Your task to perform on an android device: turn on javascript in the chrome app Image 0: 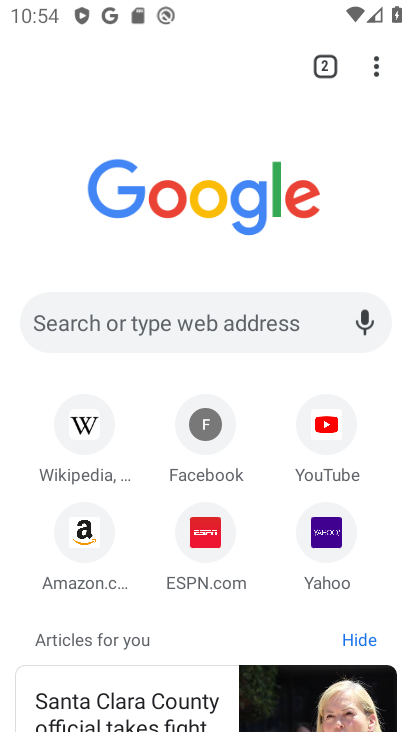
Step 0: click (326, 588)
Your task to perform on an android device: turn on javascript in the chrome app Image 1: 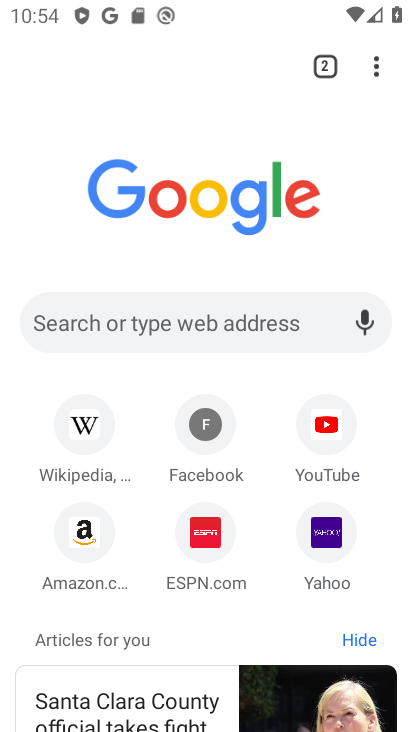
Step 1: click (374, 70)
Your task to perform on an android device: turn on javascript in the chrome app Image 2: 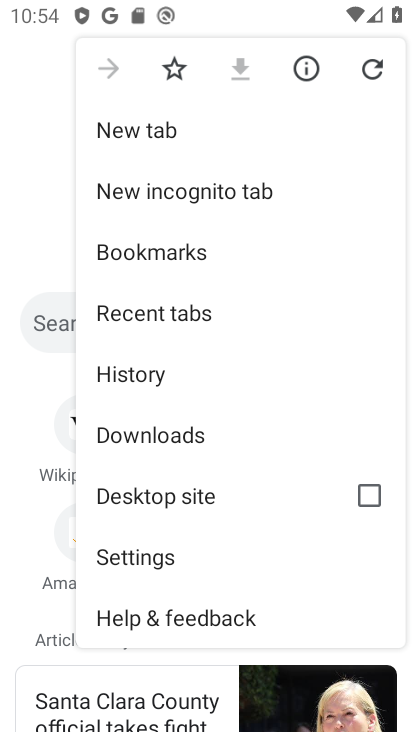
Step 2: click (161, 555)
Your task to perform on an android device: turn on javascript in the chrome app Image 3: 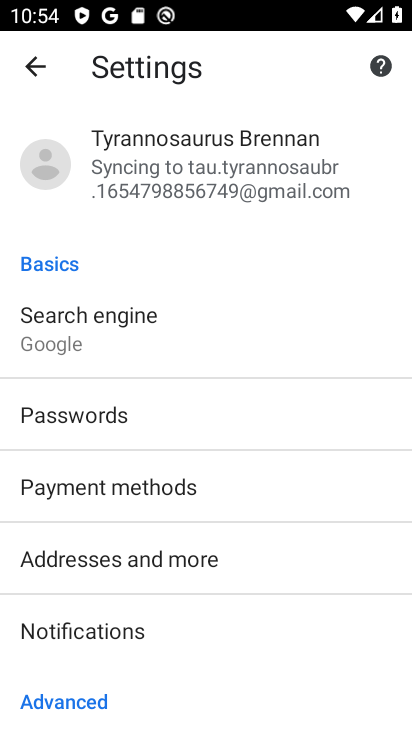
Step 3: drag from (191, 604) to (233, 265)
Your task to perform on an android device: turn on javascript in the chrome app Image 4: 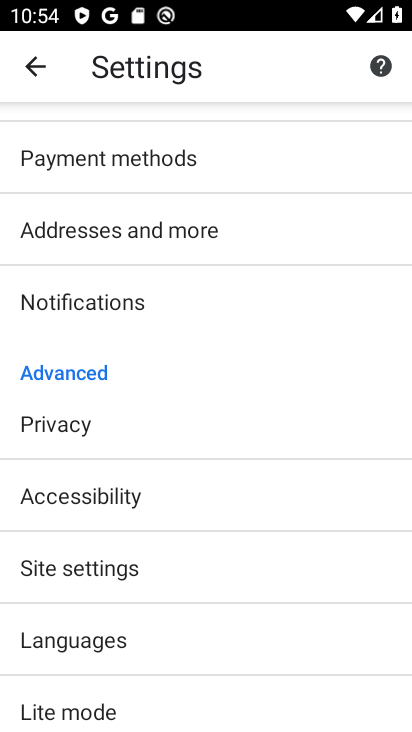
Step 4: click (125, 556)
Your task to perform on an android device: turn on javascript in the chrome app Image 5: 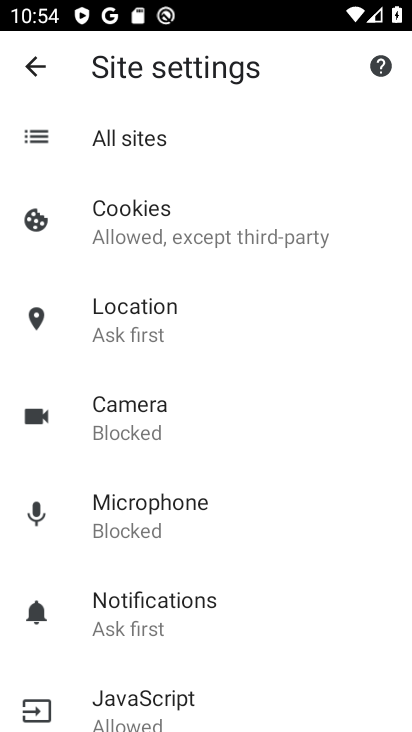
Step 5: drag from (232, 538) to (243, 280)
Your task to perform on an android device: turn on javascript in the chrome app Image 6: 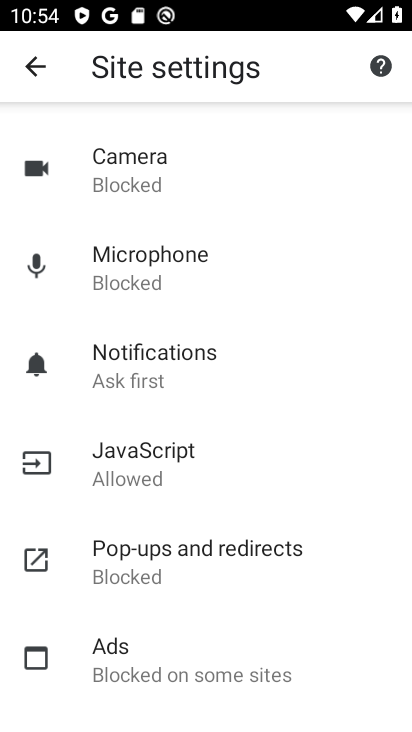
Step 6: click (182, 449)
Your task to perform on an android device: turn on javascript in the chrome app Image 7: 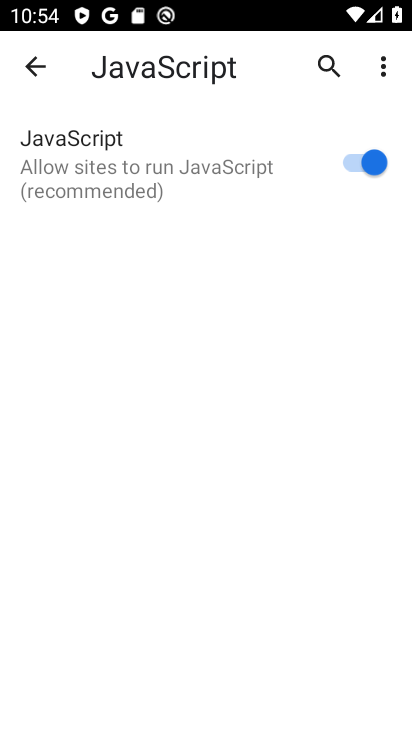
Step 7: task complete